Your task to perform on an android device: See recent photos Image 0: 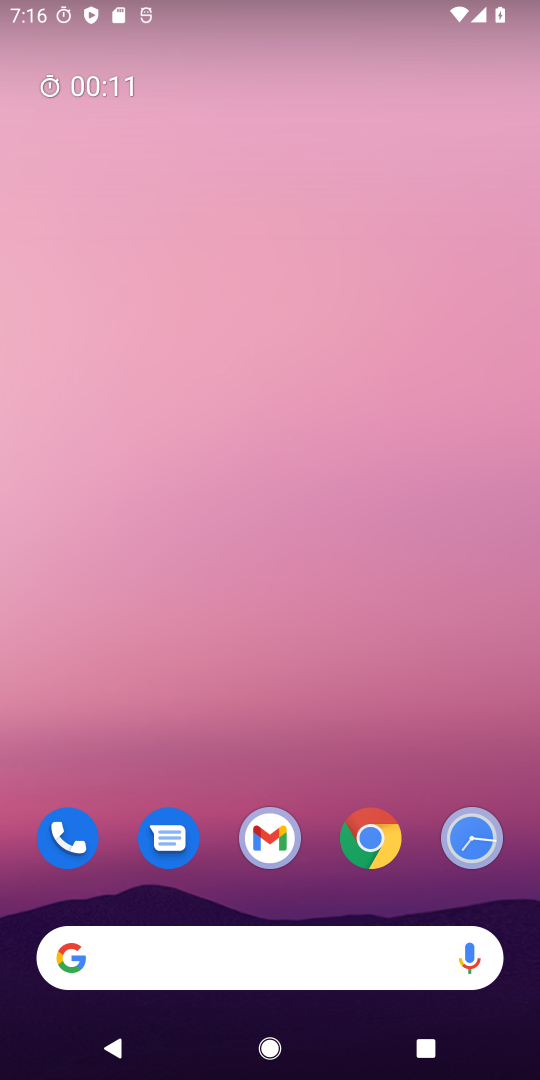
Step 0: drag from (313, 705) to (263, 73)
Your task to perform on an android device: See recent photos Image 1: 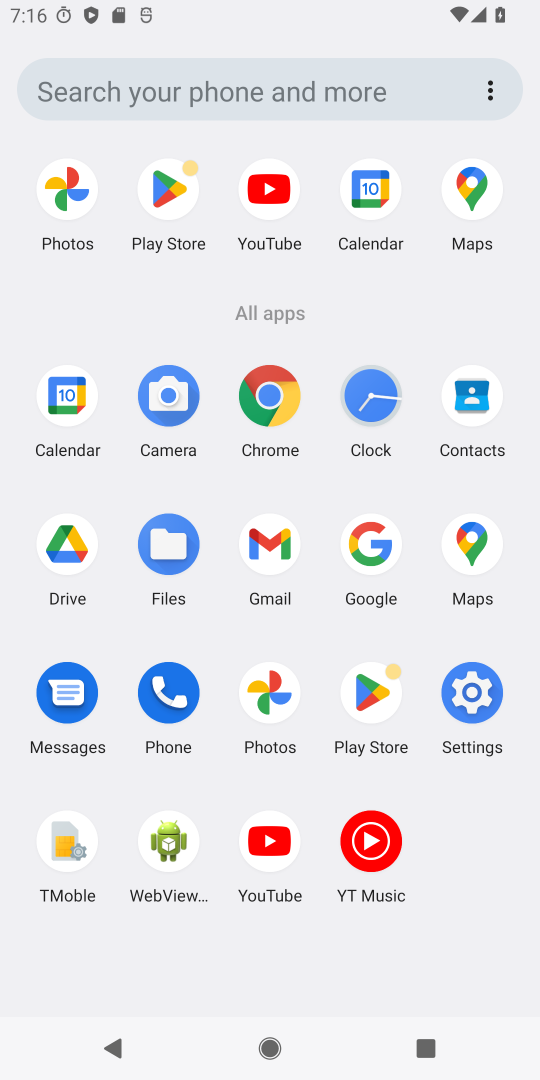
Step 1: click (273, 688)
Your task to perform on an android device: See recent photos Image 2: 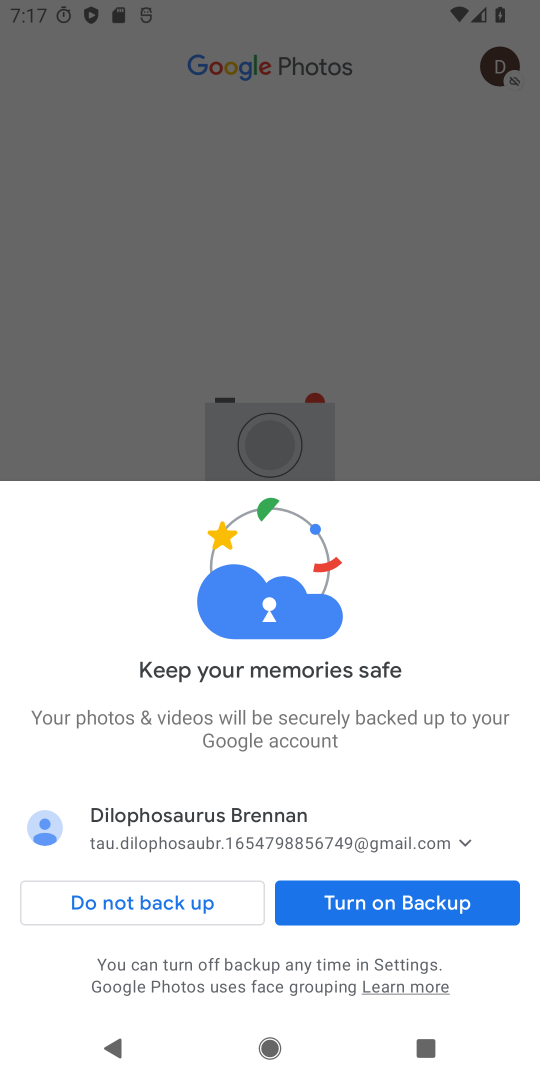
Step 2: click (401, 892)
Your task to perform on an android device: See recent photos Image 3: 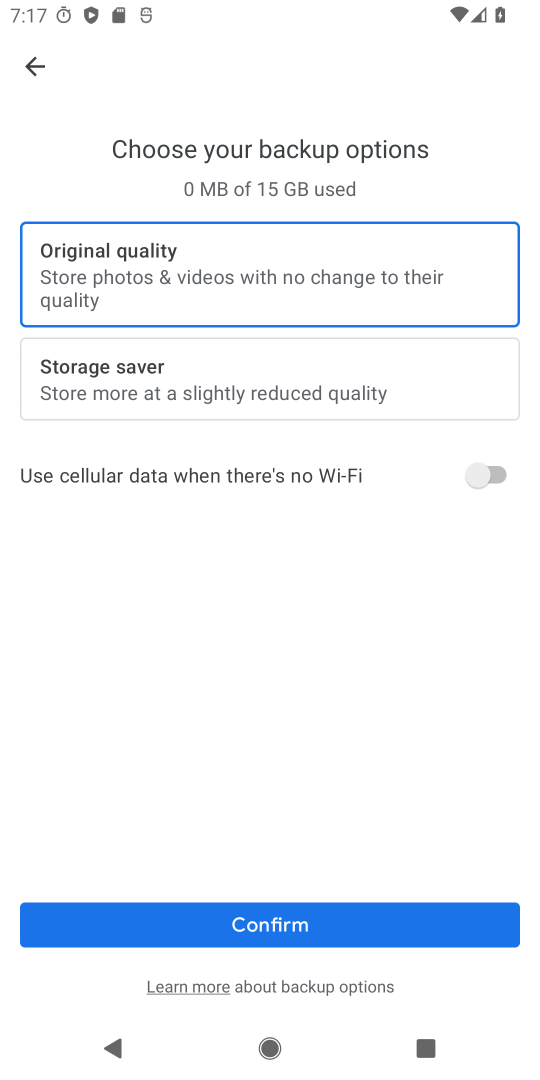
Step 3: click (33, 66)
Your task to perform on an android device: See recent photos Image 4: 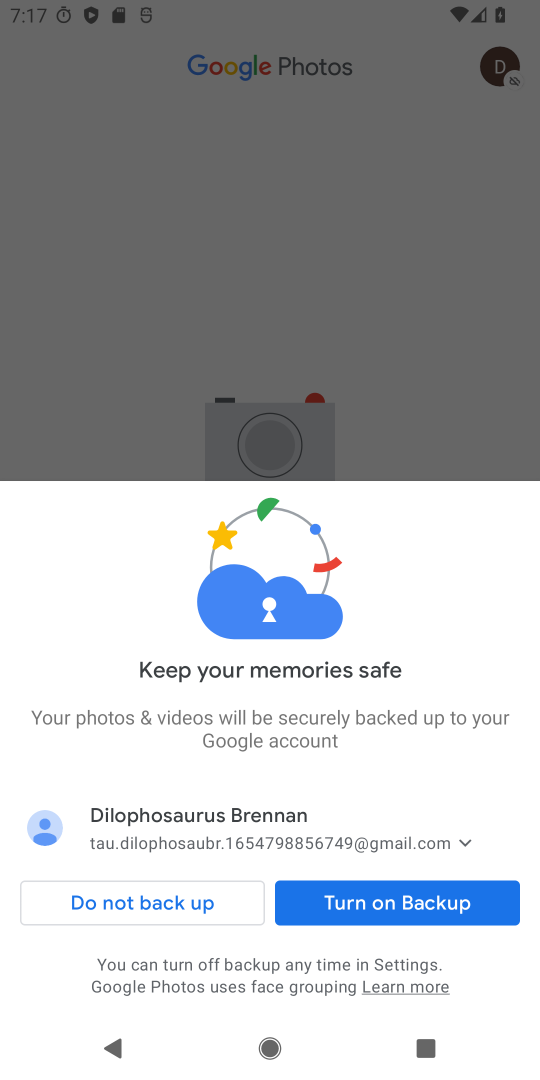
Step 4: click (296, 420)
Your task to perform on an android device: See recent photos Image 5: 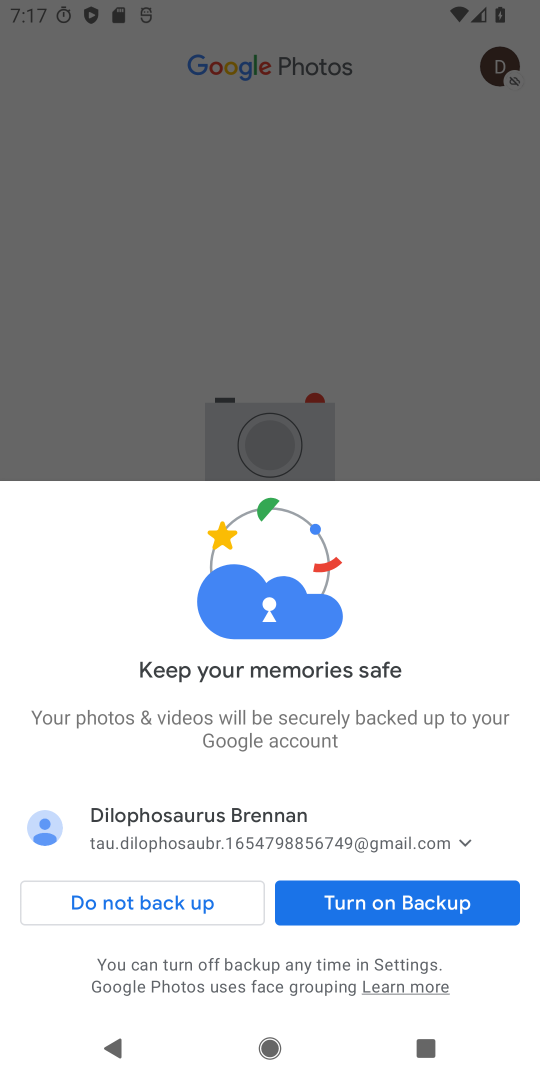
Step 5: click (403, 907)
Your task to perform on an android device: See recent photos Image 6: 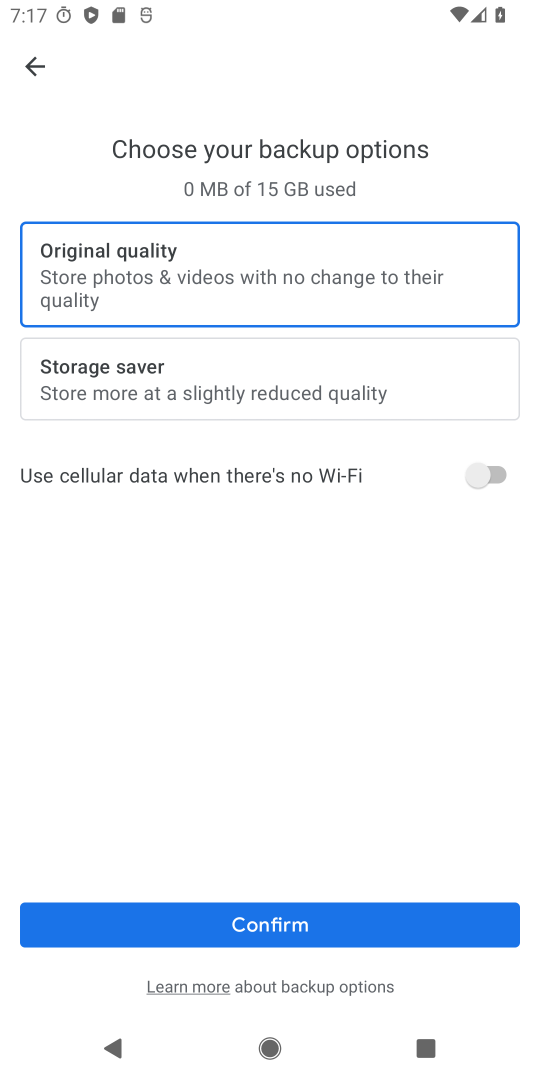
Step 6: click (381, 913)
Your task to perform on an android device: See recent photos Image 7: 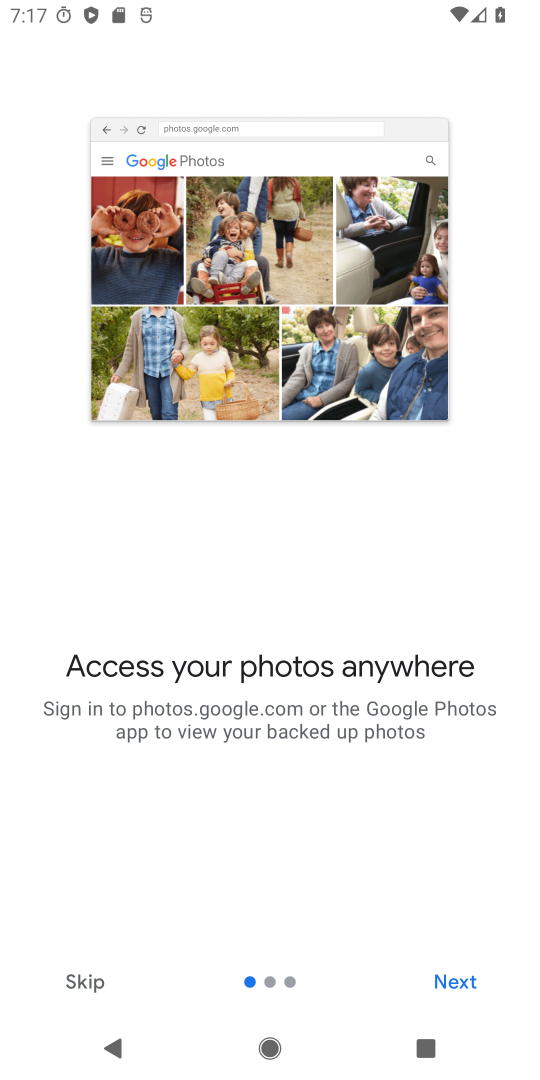
Step 7: click (461, 969)
Your task to perform on an android device: See recent photos Image 8: 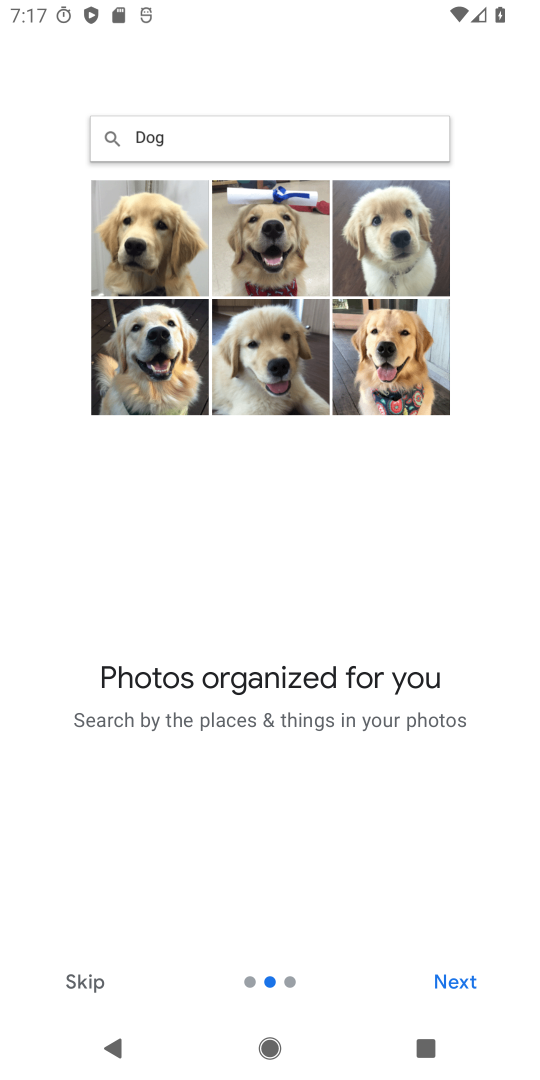
Step 8: click (461, 969)
Your task to perform on an android device: See recent photos Image 9: 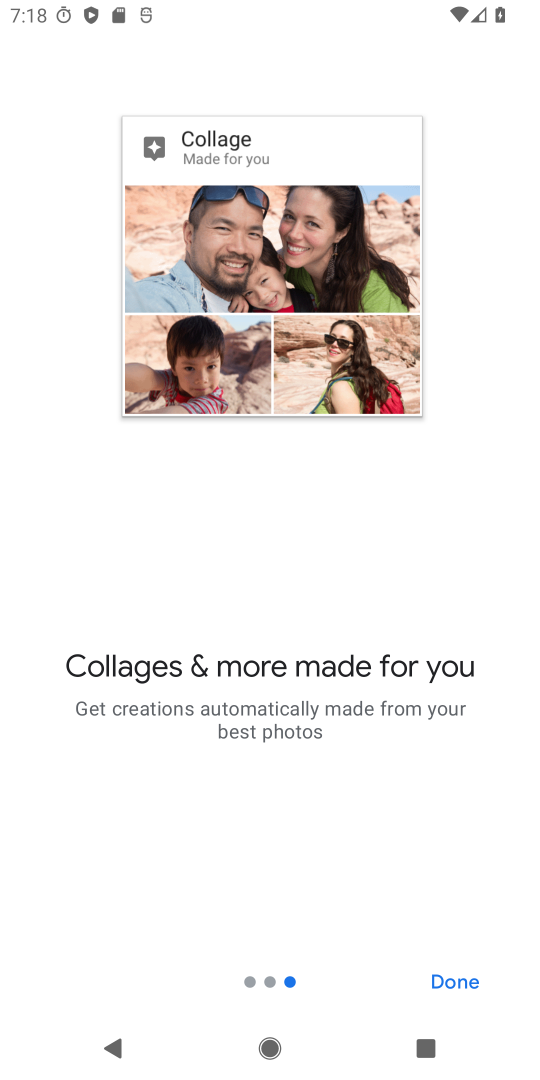
Step 9: click (461, 969)
Your task to perform on an android device: See recent photos Image 10: 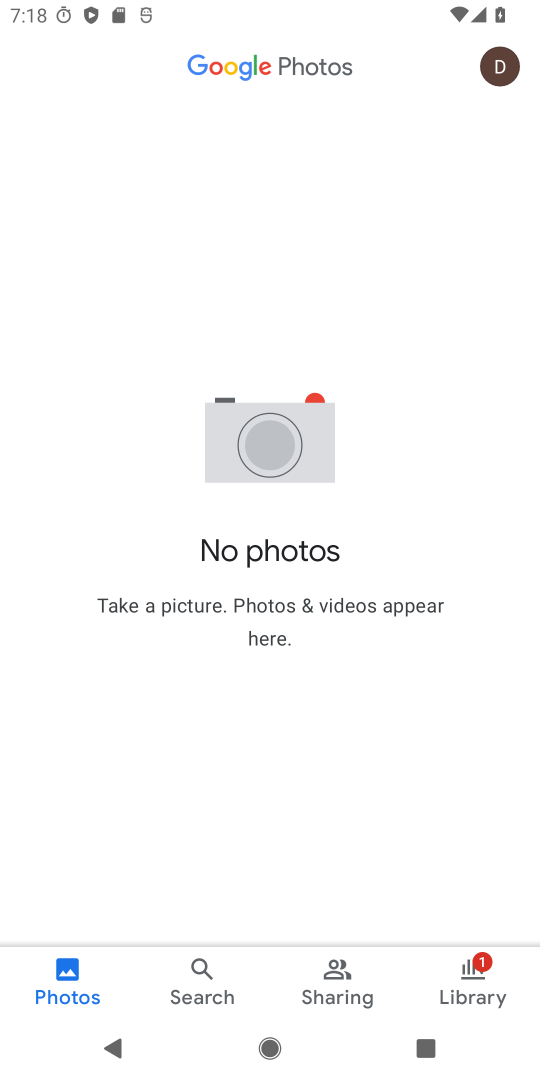
Step 10: task complete